Your task to perform on an android device: open app "Cash App" (install if not already installed) Image 0: 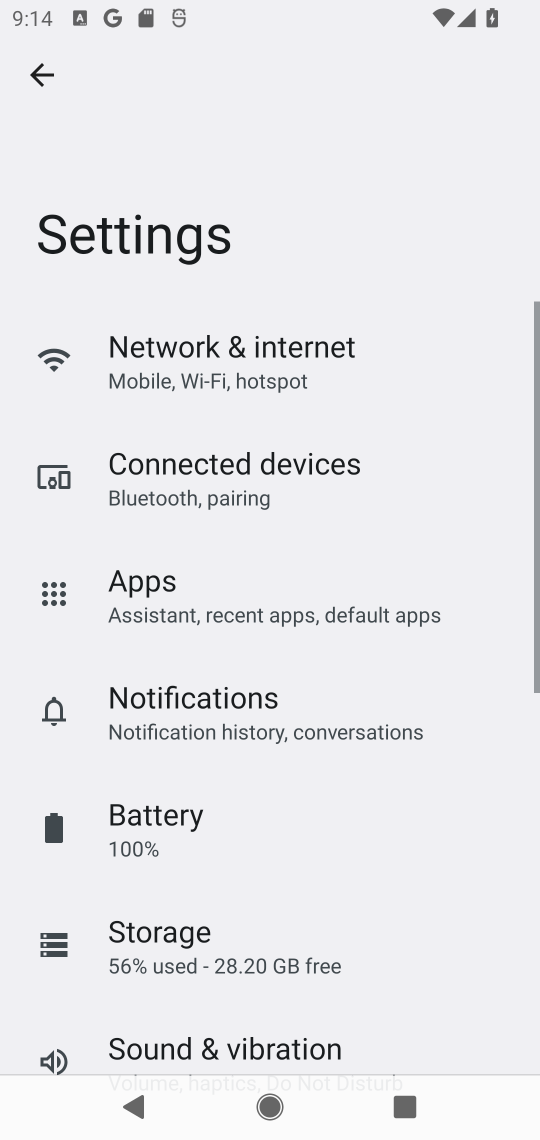
Step 0: press home button
Your task to perform on an android device: open app "Cash App" (install if not already installed) Image 1: 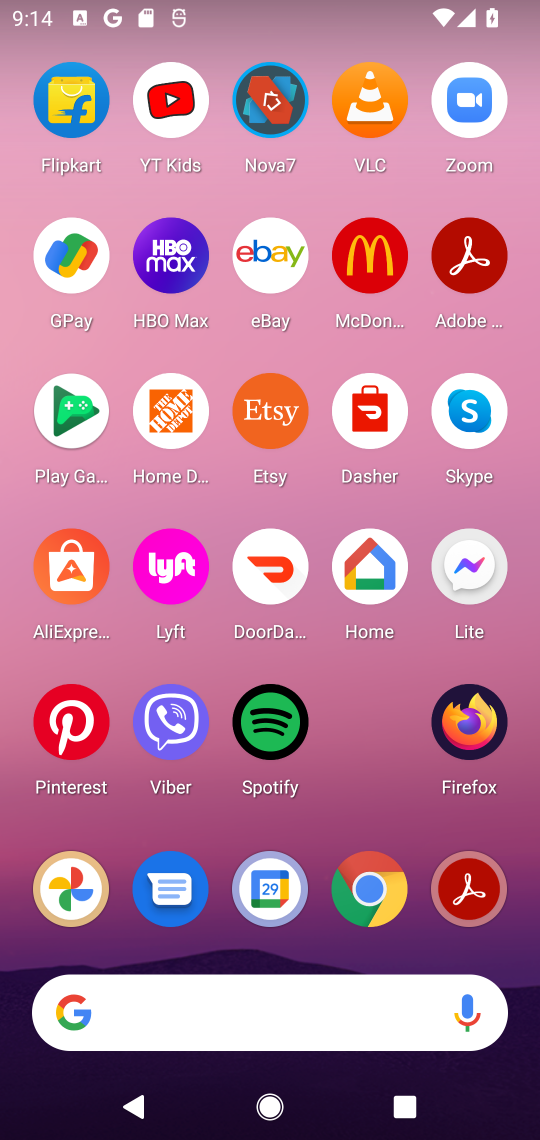
Step 1: press home button
Your task to perform on an android device: open app "Cash App" (install if not already installed) Image 2: 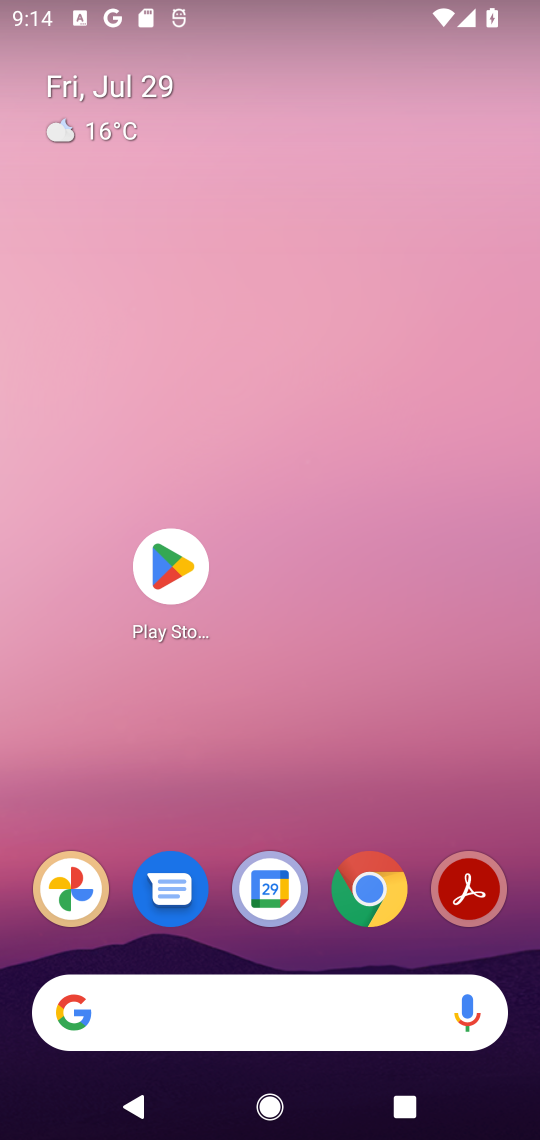
Step 2: click (164, 566)
Your task to perform on an android device: open app "Cash App" (install if not already installed) Image 3: 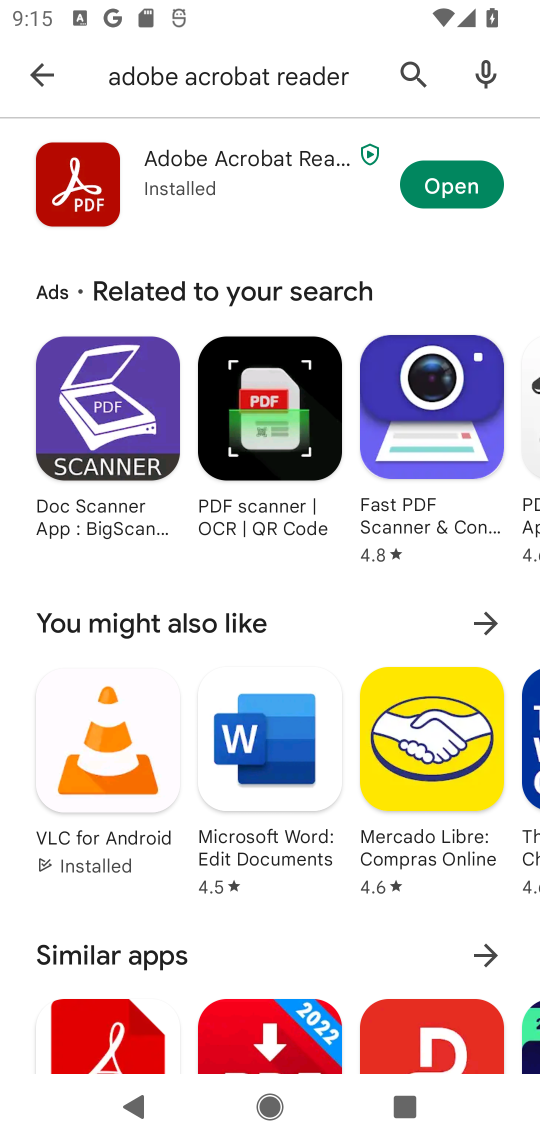
Step 3: click (409, 65)
Your task to perform on an android device: open app "Cash App" (install if not already installed) Image 4: 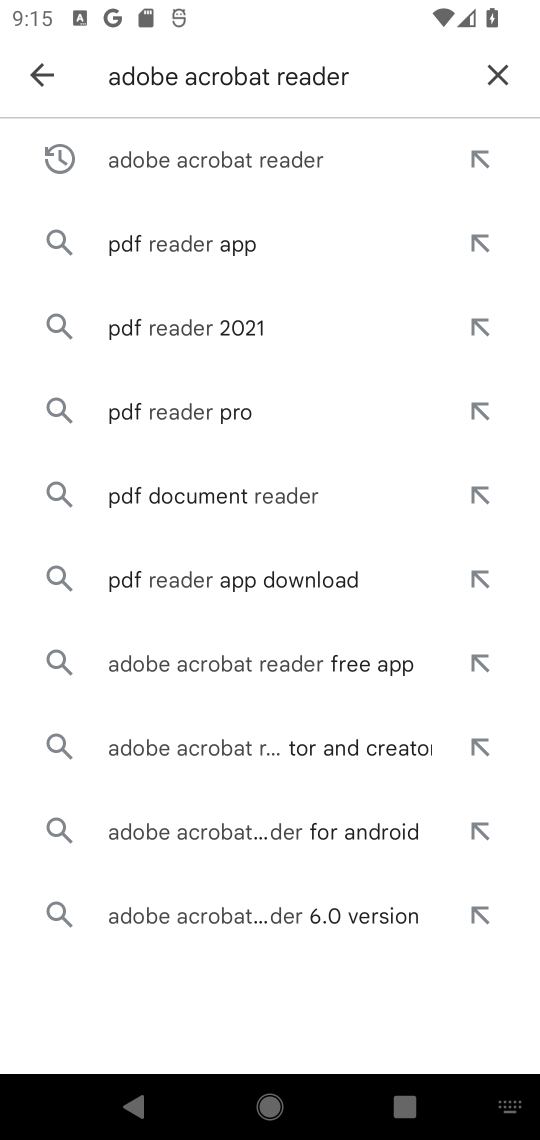
Step 4: click (498, 66)
Your task to perform on an android device: open app "Cash App" (install if not already installed) Image 5: 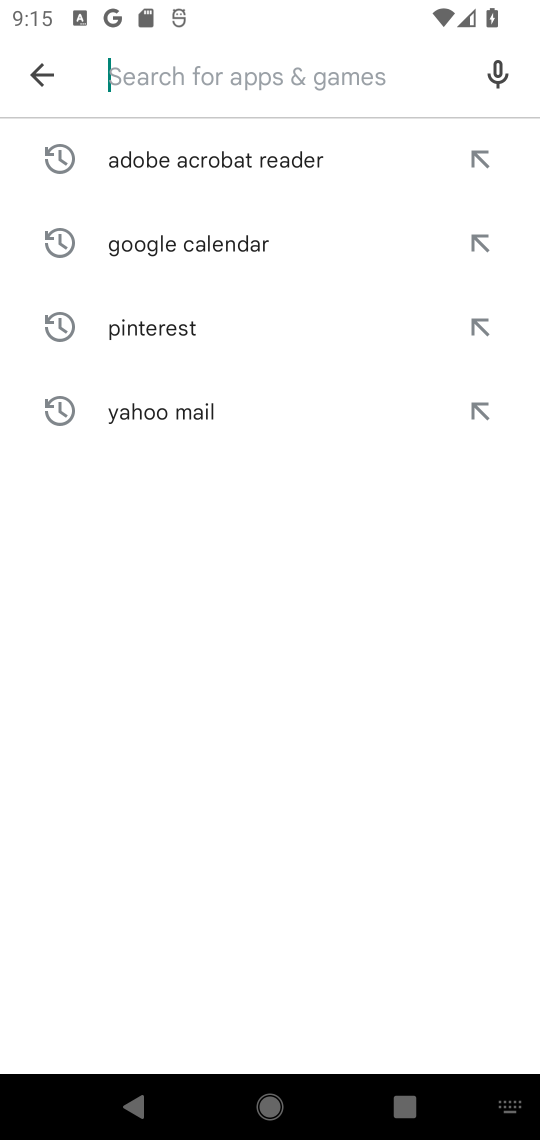
Step 5: type "Cash App"
Your task to perform on an android device: open app "Cash App" (install if not already installed) Image 6: 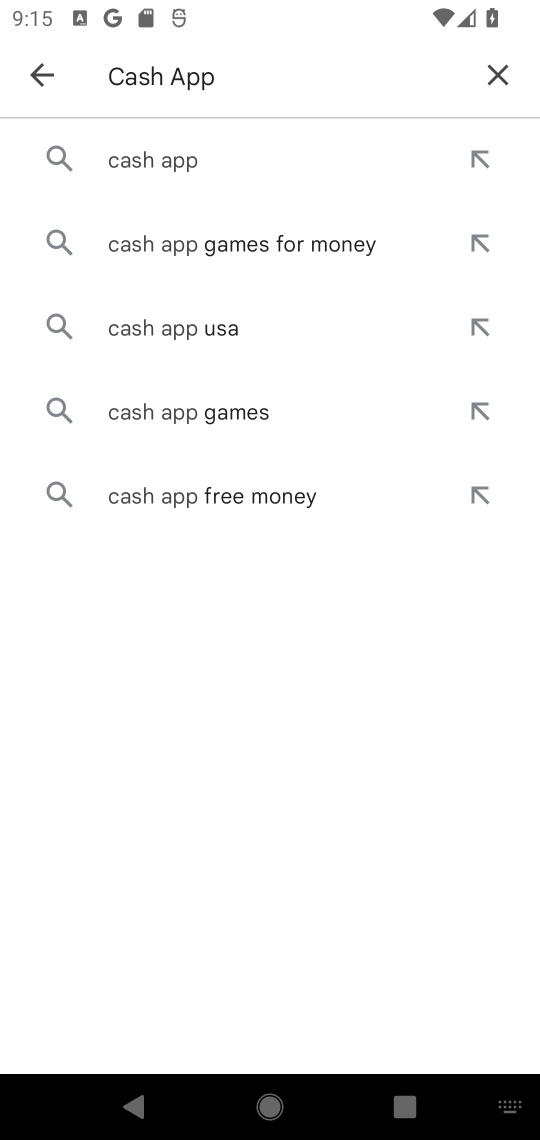
Step 6: click (189, 162)
Your task to perform on an android device: open app "Cash App" (install if not already installed) Image 7: 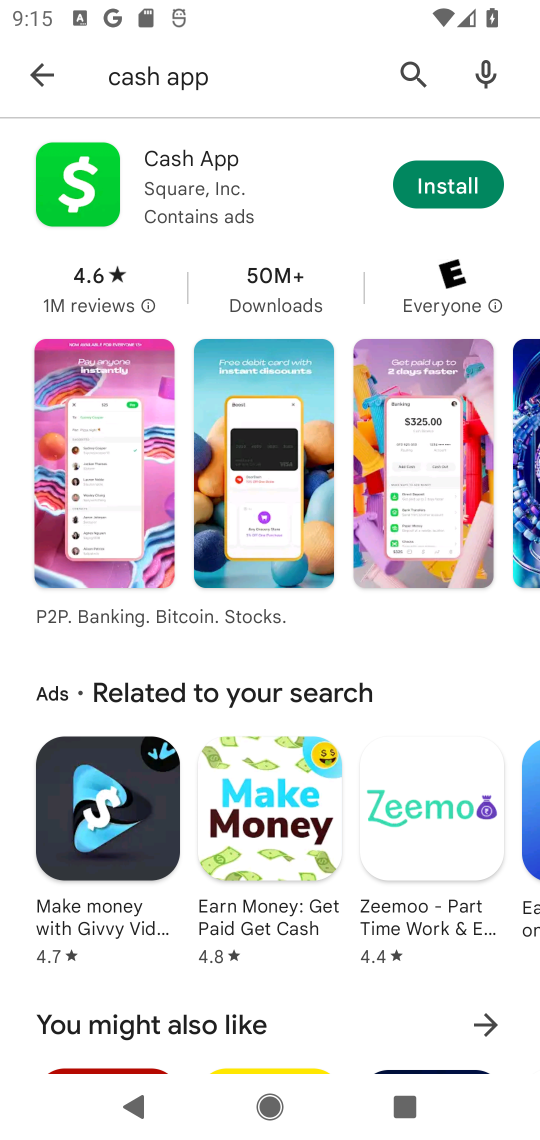
Step 7: click (439, 180)
Your task to perform on an android device: open app "Cash App" (install if not already installed) Image 8: 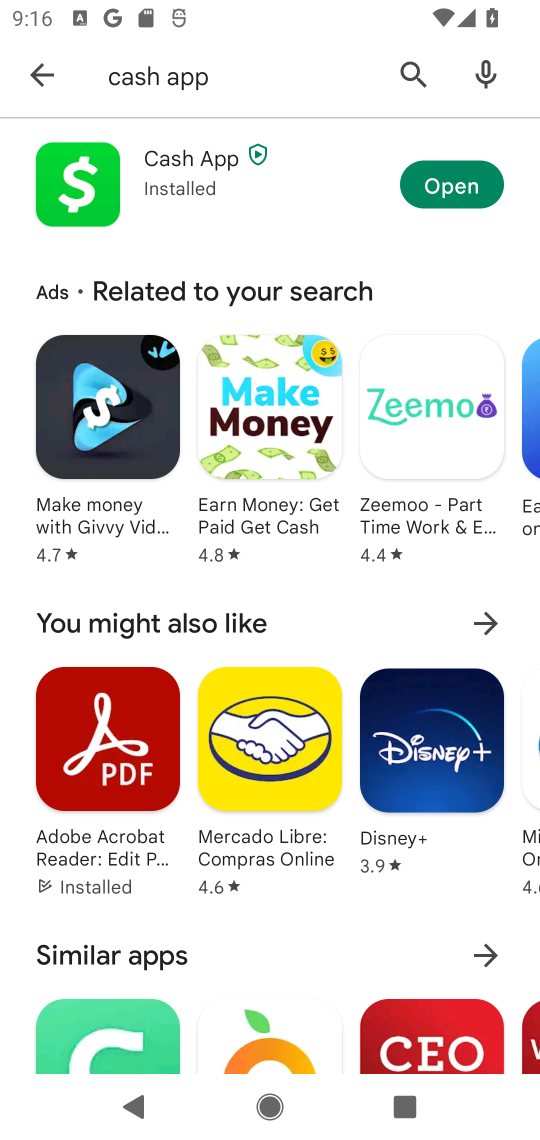
Step 8: click (471, 179)
Your task to perform on an android device: open app "Cash App" (install if not already installed) Image 9: 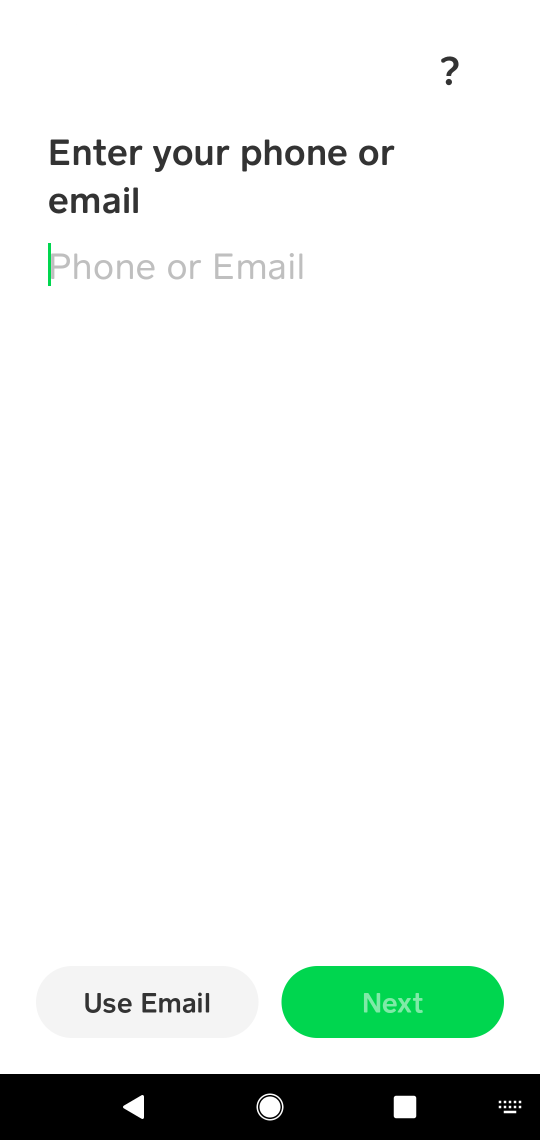
Step 9: task complete